Your task to perform on an android device: Open display settings Image 0: 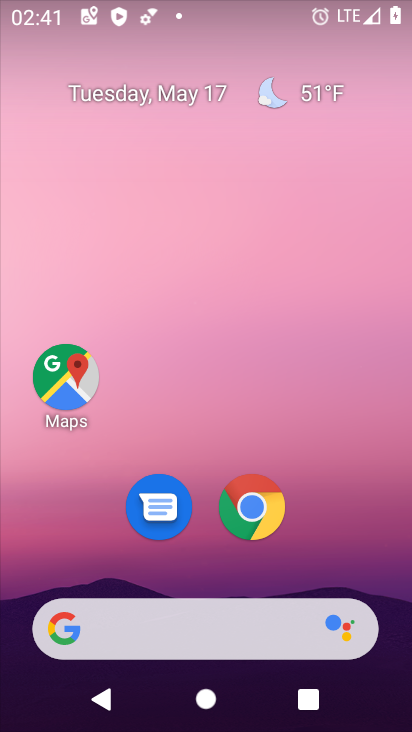
Step 0: drag from (207, 568) to (213, 102)
Your task to perform on an android device: Open display settings Image 1: 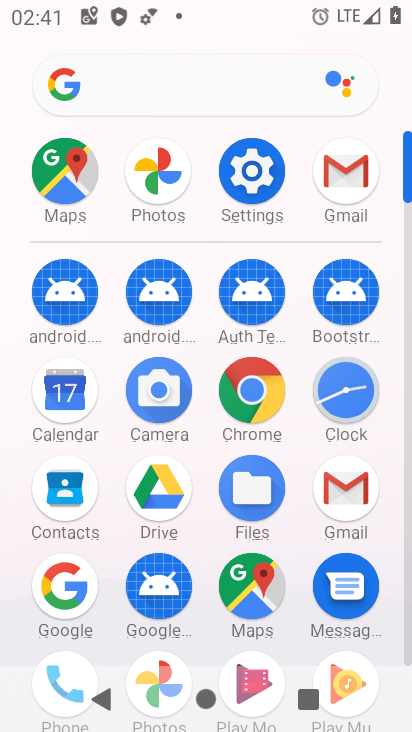
Step 1: click (244, 172)
Your task to perform on an android device: Open display settings Image 2: 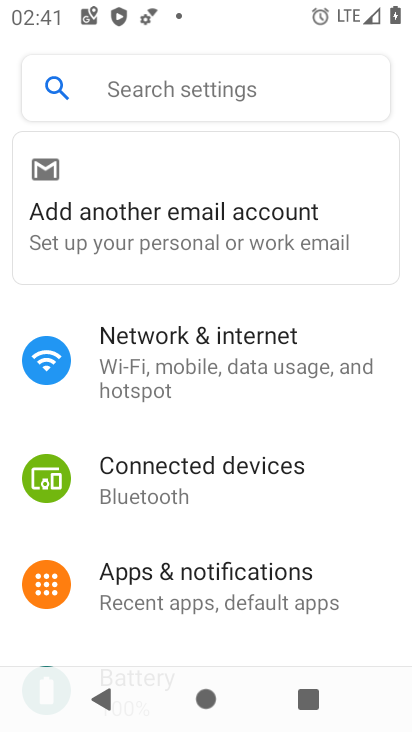
Step 2: drag from (185, 574) to (206, 218)
Your task to perform on an android device: Open display settings Image 3: 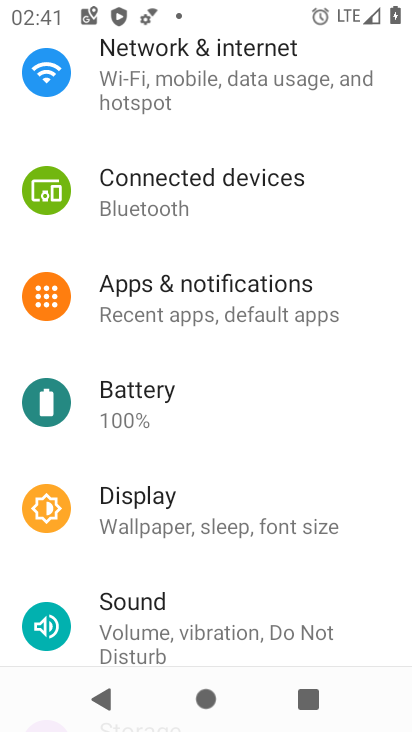
Step 3: click (172, 529)
Your task to perform on an android device: Open display settings Image 4: 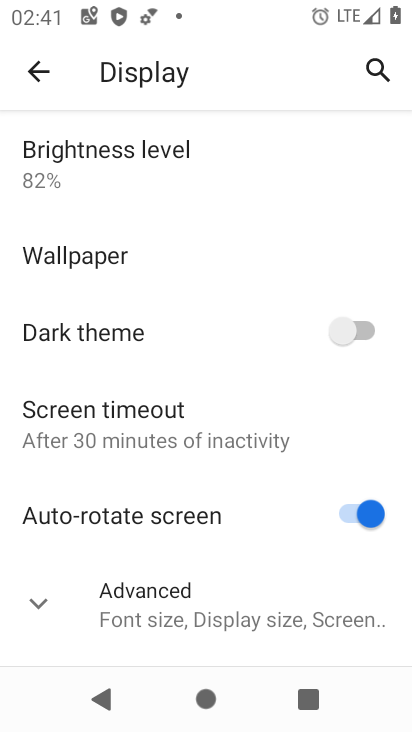
Step 4: task complete